Your task to perform on an android device: install app "Messages" Image 0: 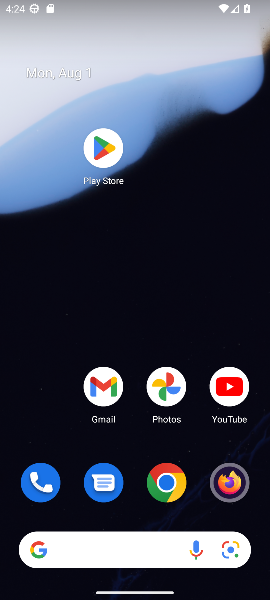
Step 0: press home button
Your task to perform on an android device: install app "Messages" Image 1: 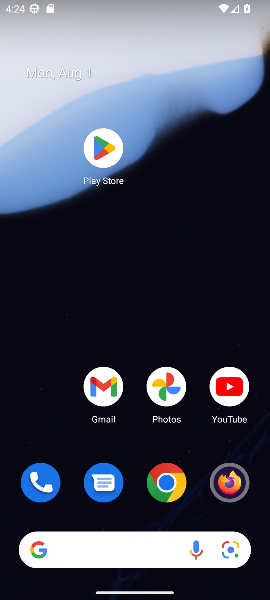
Step 1: click (97, 147)
Your task to perform on an android device: install app "Messages" Image 2: 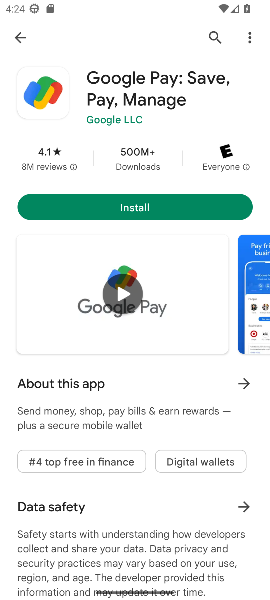
Step 2: click (208, 32)
Your task to perform on an android device: install app "Messages" Image 3: 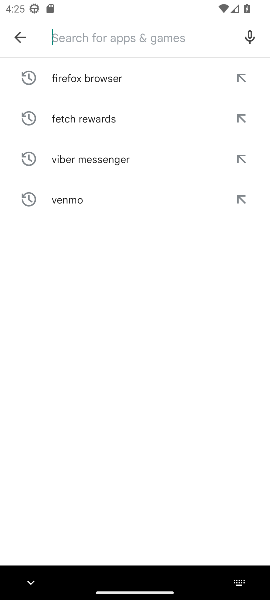
Step 3: type "Messages"
Your task to perform on an android device: install app "Messages" Image 4: 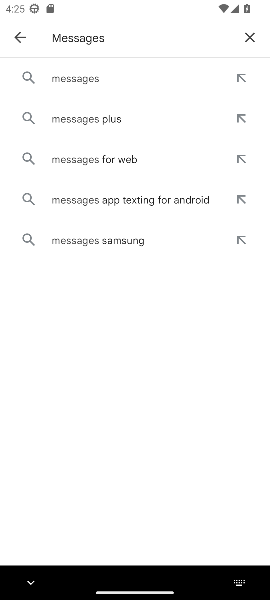
Step 4: click (65, 86)
Your task to perform on an android device: install app "Messages" Image 5: 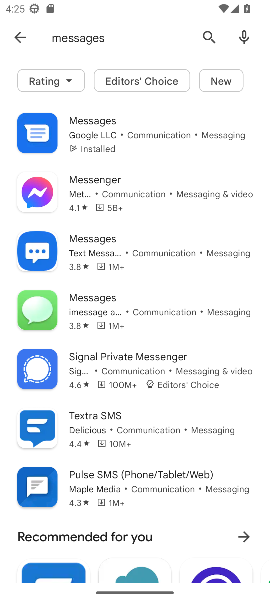
Step 5: click (112, 137)
Your task to perform on an android device: install app "Messages" Image 6: 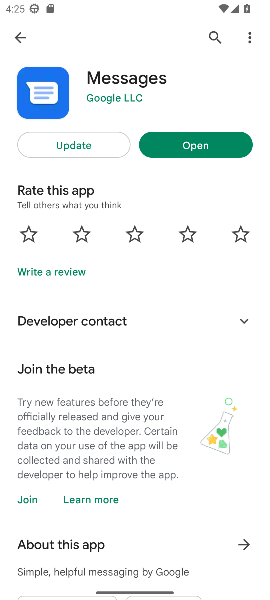
Step 6: task complete